Your task to perform on an android device: open a bookmark in the chrome app Image 0: 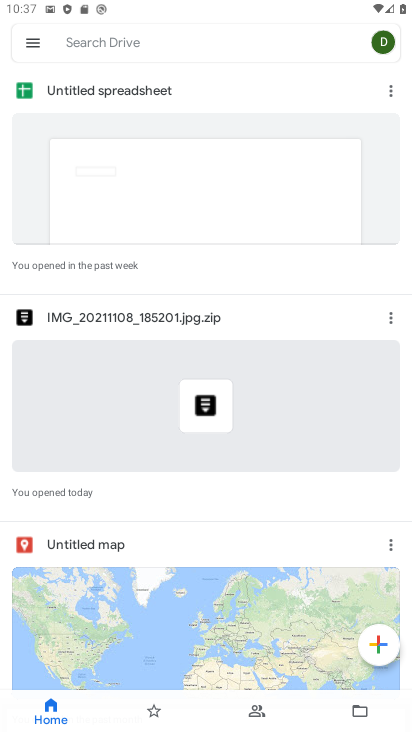
Step 0: press home button
Your task to perform on an android device: open a bookmark in the chrome app Image 1: 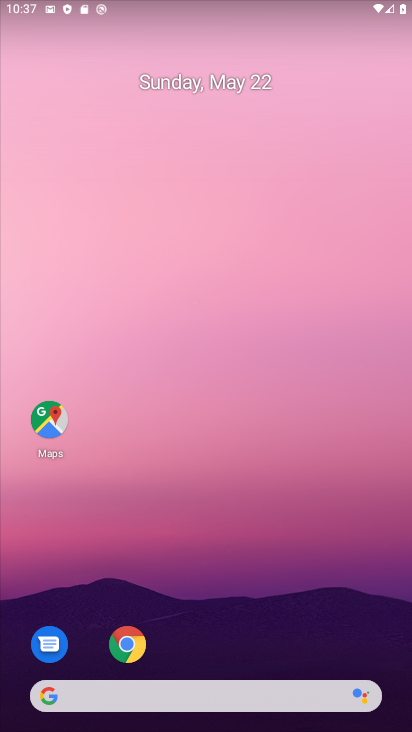
Step 1: click (126, 641)
Your task to perform on an android device: open a bookmark in the chrome app Image 2: 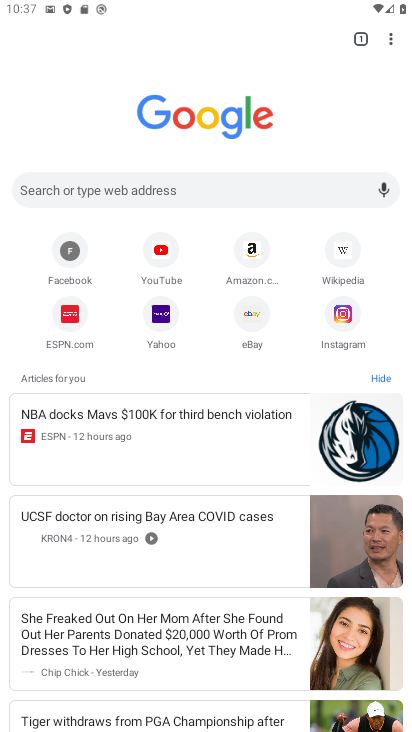
Step 2: click (390, 38)
Your task to perform on an android device: open a bookmark in the chrome app Image 3: 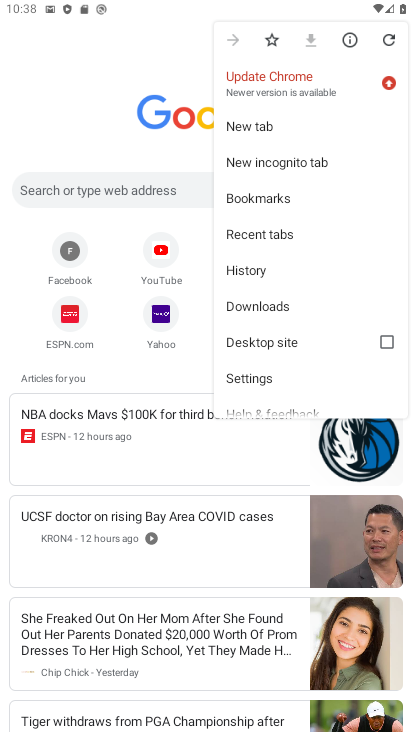
Step 3: click (295, 193)
Your task to perform on an android device: open a bookmark in the chrome app Image 4: 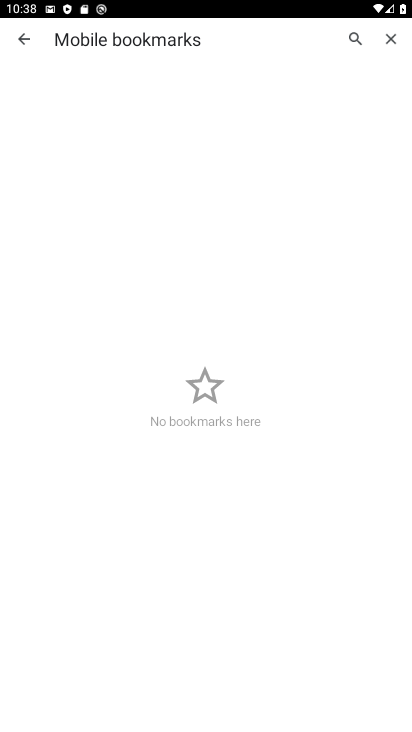
Step 4: task complete